Your task to perform on an android device: Go to sound settings Image 0: 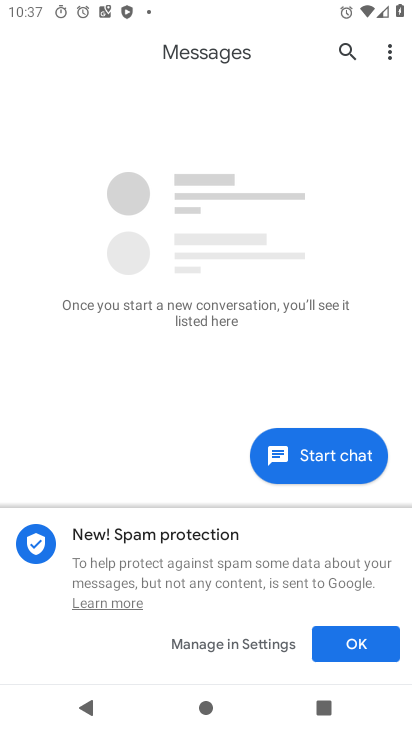
Step 0: press home button
Your task to perform on an android device: Go to sound settings Image 1: 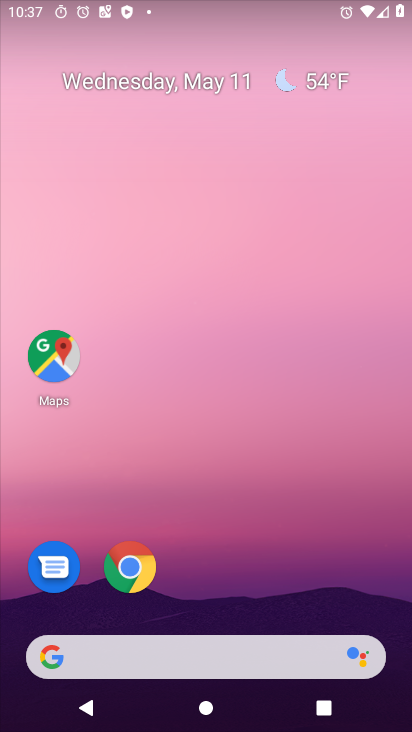
Step 1: drag from (192, 611) to (327, 101)
Your task to perform on an android device: Go to sound settings Image 2: 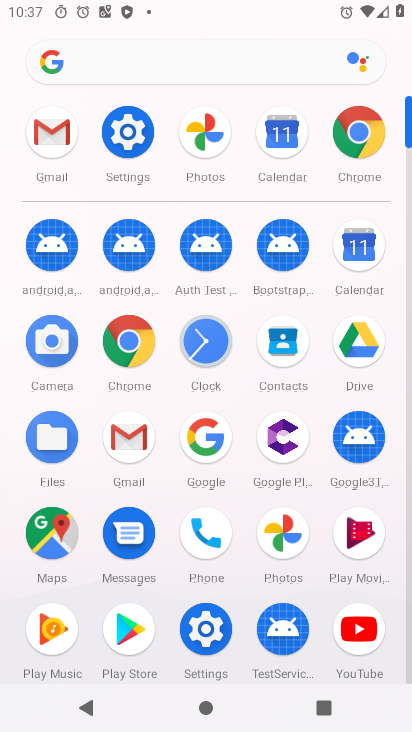
Step 2: click (207, 629)
Your task to perform on an android device: Go to sound settings Image 3: 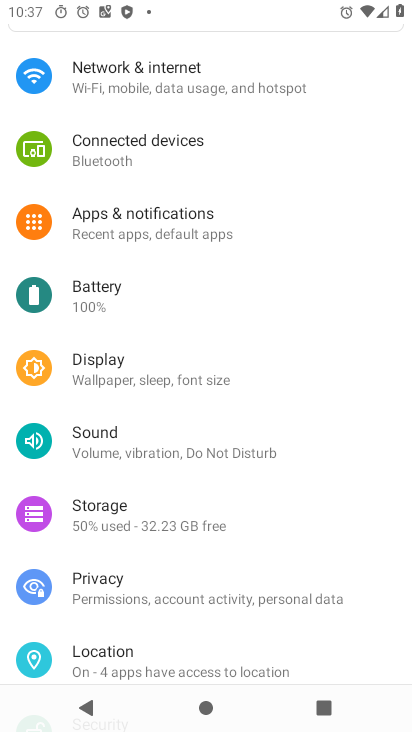
Step 3: click (120, 461)
Your task to perform on an android device: Go to sound settings Image 4: 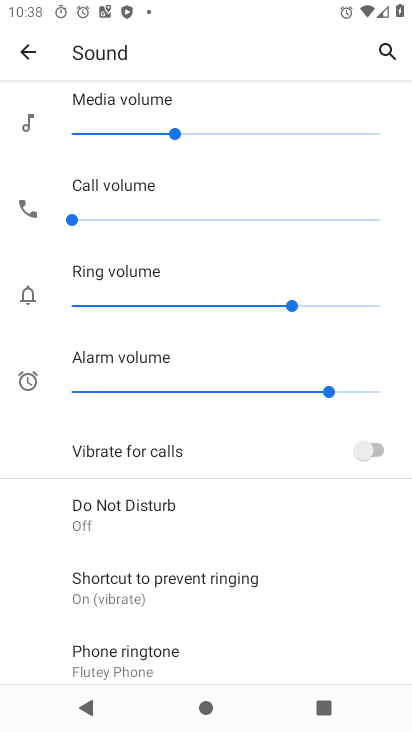
Step 4: task complete